Your task to perform on an android device: open app "Lyft - Rideshare, Bikes, Scooters & Transit" (install if not already installed) Image 0: 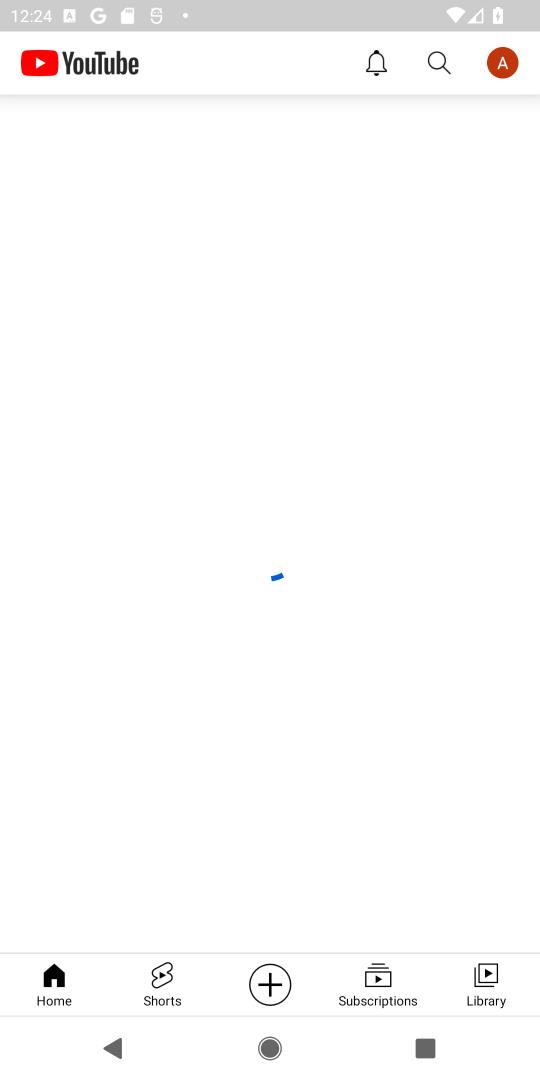
Step 0: press home button
Your task to perform on an android device: open app "Lyft - Rideshare, Bikes, Scooters & Transit" (install if not already installed) Image 1: 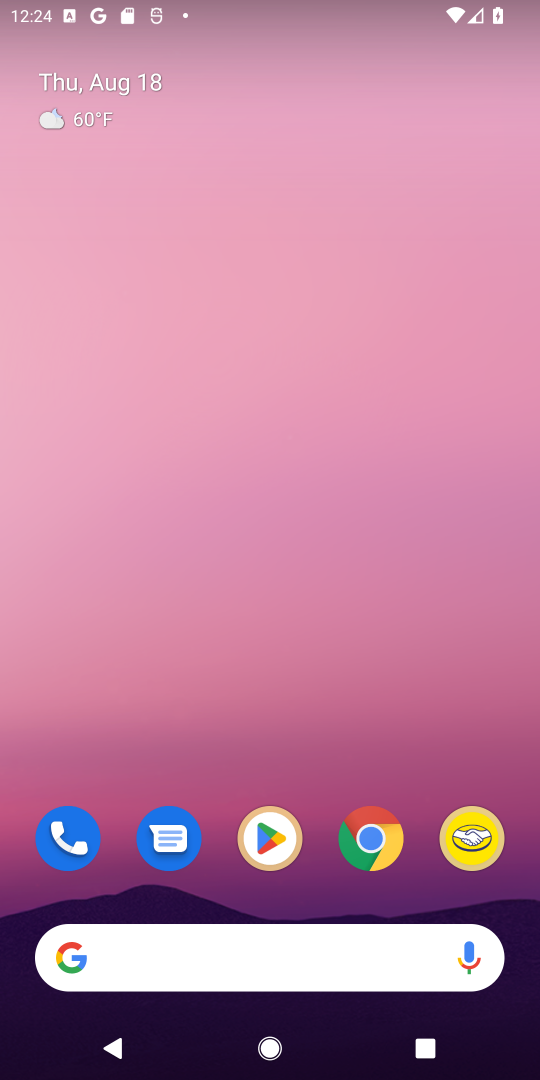
Step 1: click (264, 839)
Your task to perform on an android device: open app "Lyft - Rideshare, Bikes, Scooters & Transit" (install if not already installed) Image 2: 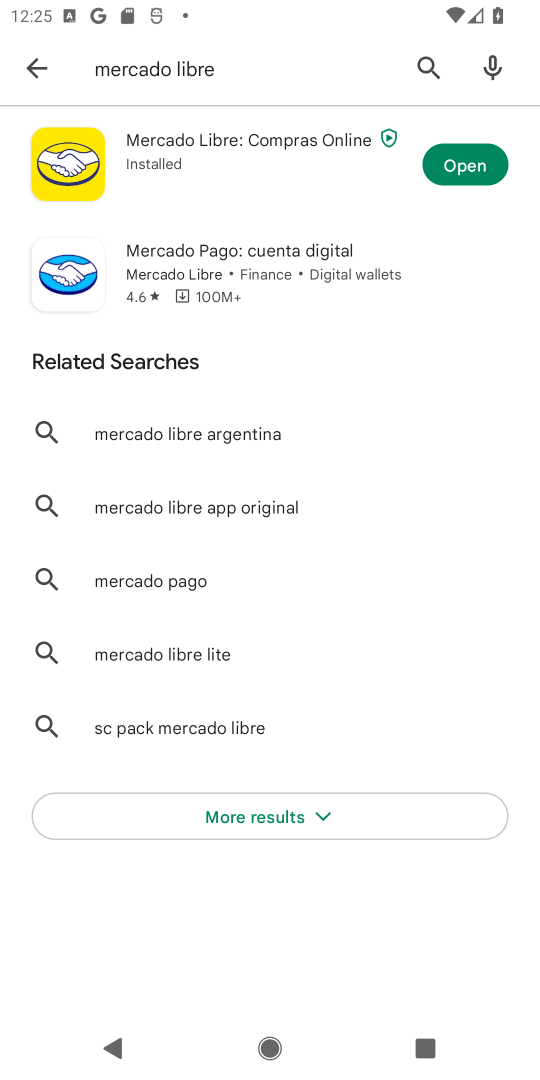
Step 2: click (431, 60)
Your task to perform on an android device: open app "Lyft - Rideshare, Bikes, Scooters & Transit" (install if not already installed) Image 3: 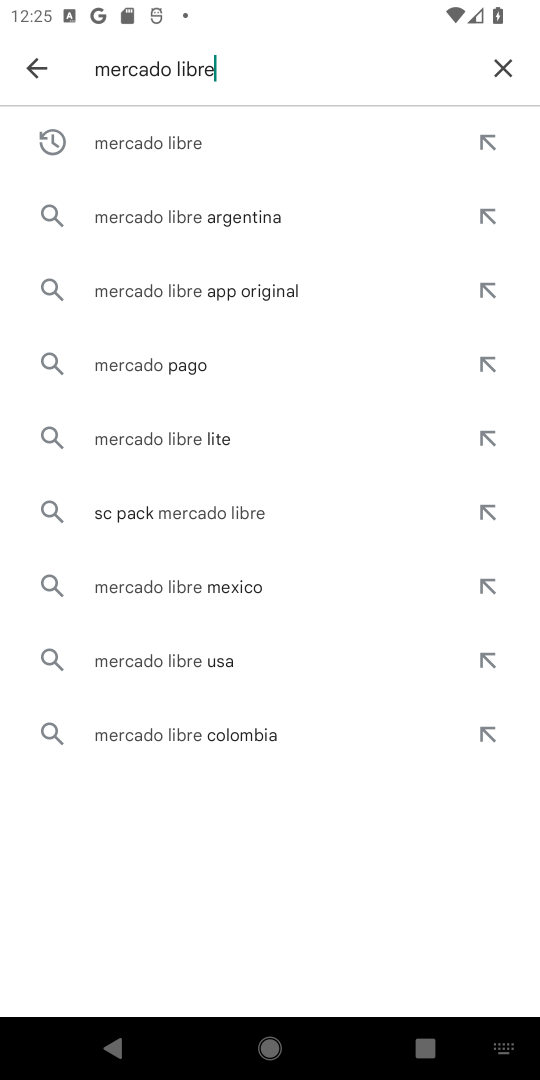
Step 3: click (503, 49)
Your task to perform on an android device: open app "Lyft - Rideshare, Bikes, Scooters & Transit" (install if not already installed) Image 4: 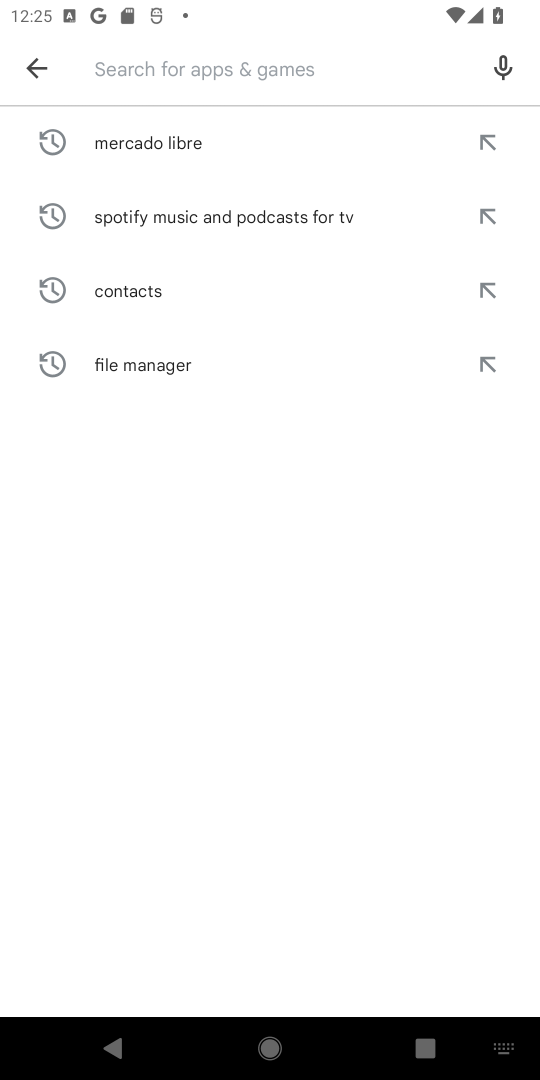
Step 4: type "Lyft - Rideshare, Bikes, Scooters & Transit"
Your task to perform on an android device: open app "Lyft - Rideshare, Bikes, Scooters & Transit" (install if not already installed) Image 5: 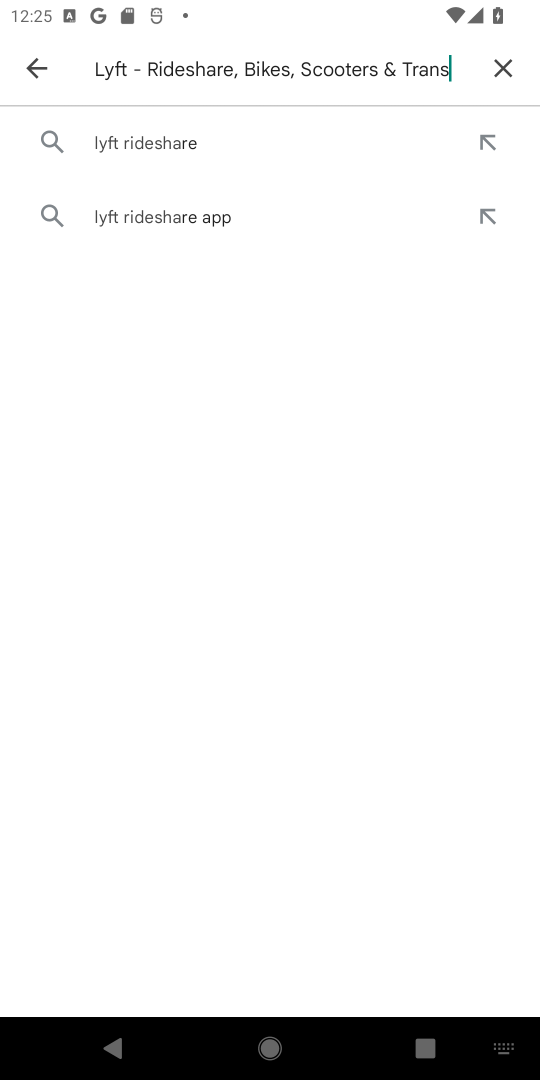
Step 5: type ""
Your task to perform on an android device: open app "Lyft - Rideshare, Bikes, Scooters & Transit" (install if not already installed) Image 6: 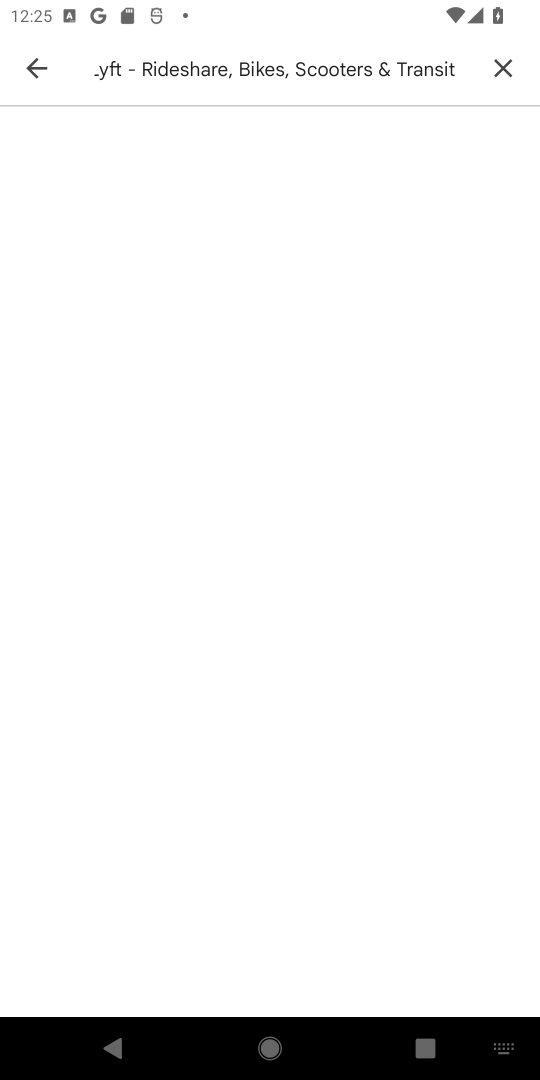
Step 6: task complete